Your task to perform on an android device: Go to location settings Image 0: 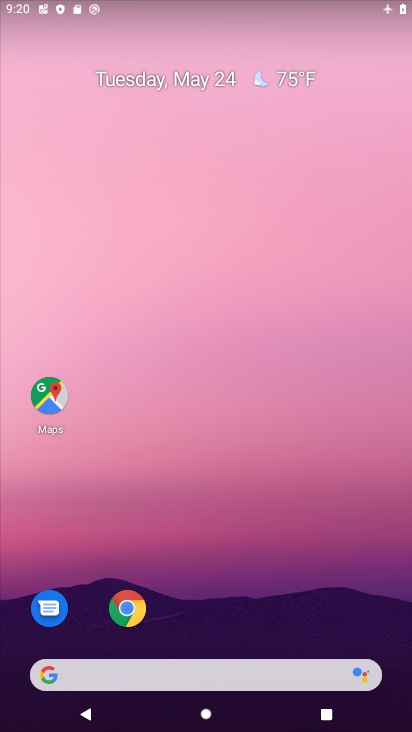
Step 0: drag from (291, 494) to (228, 11)
Your task to perform on an android device: Go to location settings Image 1: 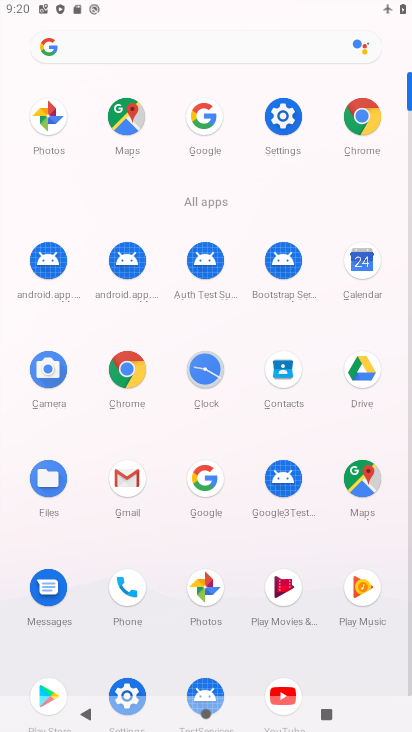
Step 1: click (286, 128)
Your task to perform on an android device: Go to location settings Image 2: 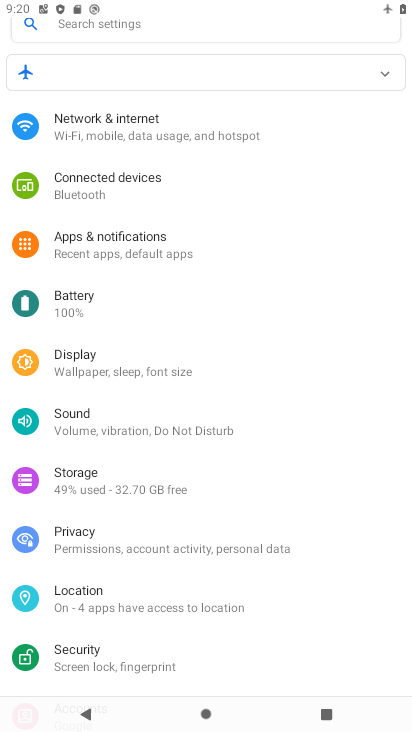
Step 2: click (176, 591)
Your task to perform on an android device: Go to location settings Image 3: 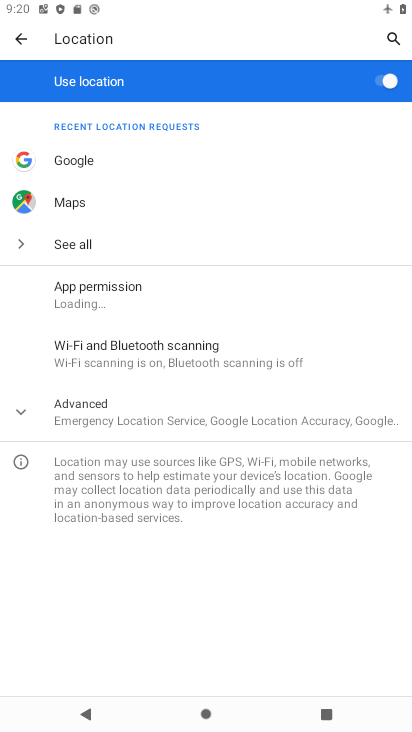
Step 3: task complete